Your task to perform on an android device: toggle translation in the chrome app Image 0: 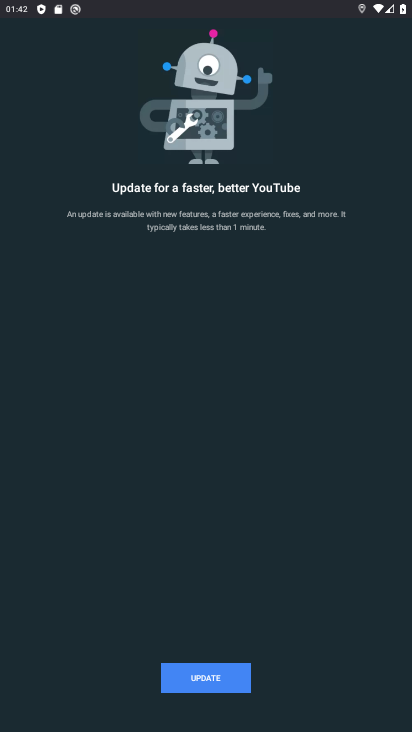
Step 0: press back button
Your task to perform on an android device: toggle translation in the chrome app Image 1: 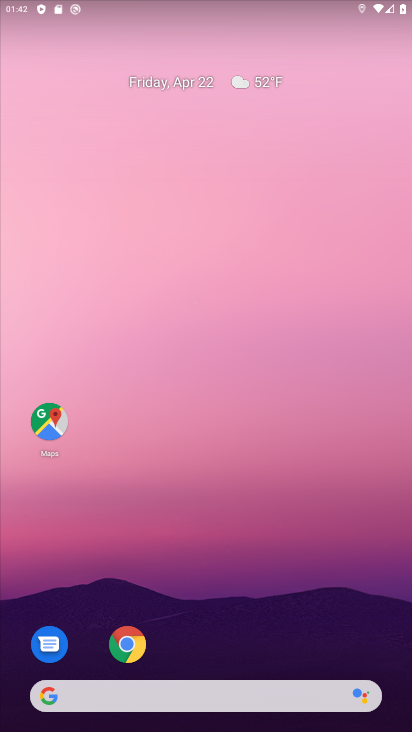
Step 1: click (142, 648)
Your task to perform on an android device: toggle translation in the chrome app Image 2: 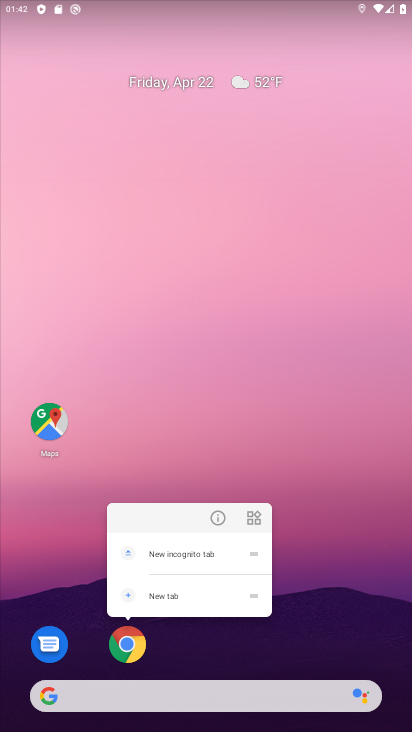
Step 2: click (142, 648)
Your task to perform on an android device: toggle translation in the chrome app Image 3: 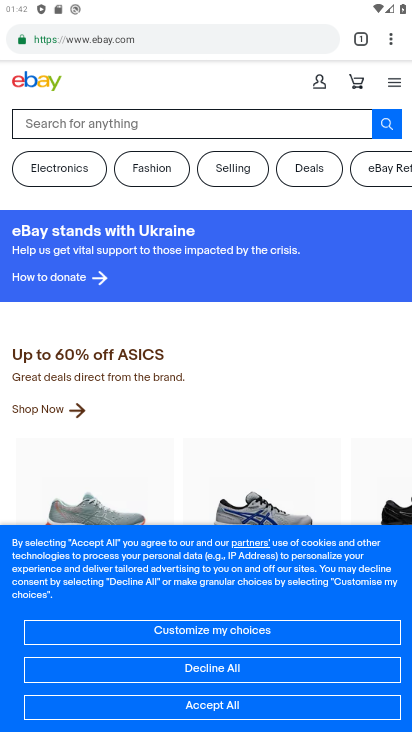
Step 3: click (391, 57)
Your task to perform on an android device: toggle translation in the chrome app Image 4: 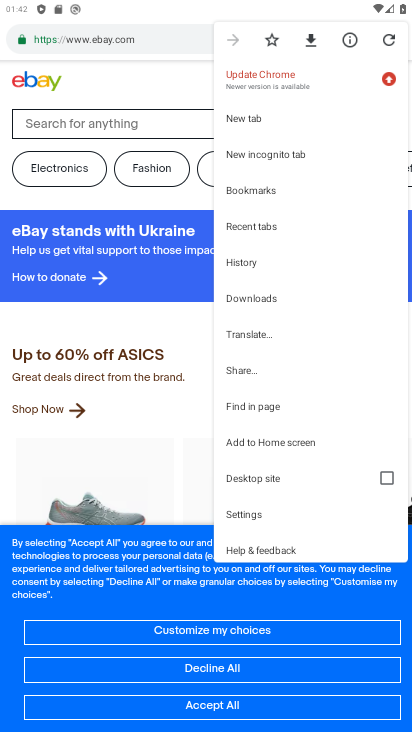
Step 4: click (271, 513)
Your task to perform on an android device: toggle translation in the chrome app Image 5: 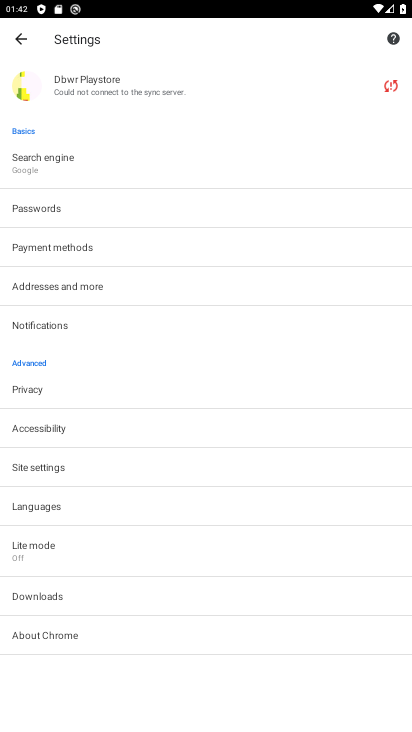
Step 5: click (134, 517)
Your task to perform on an android device: toggle translation in the chrome app Image 6: 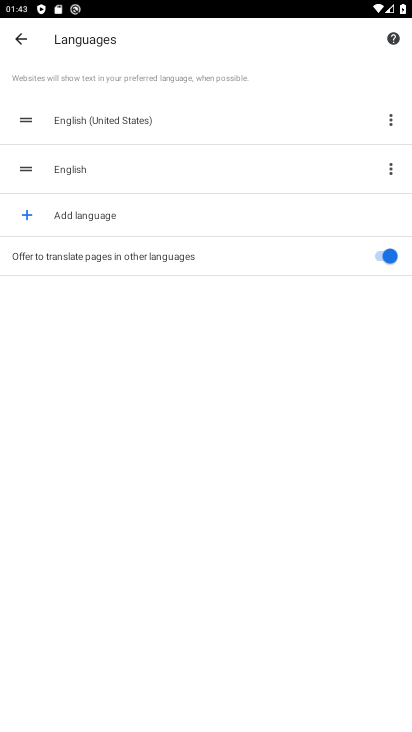
Step 6: click (381, 273)
Your task to perform on an android device: toggle translation in the chrome app Image 7: 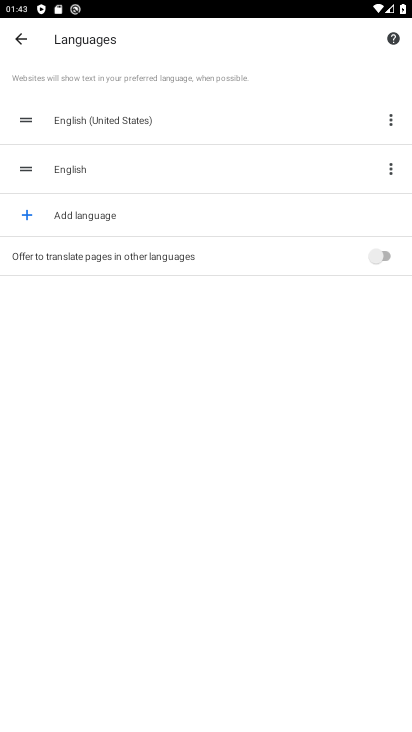
Step 7: task complete